Your task to perform on an android device: Check the weather Image 0: 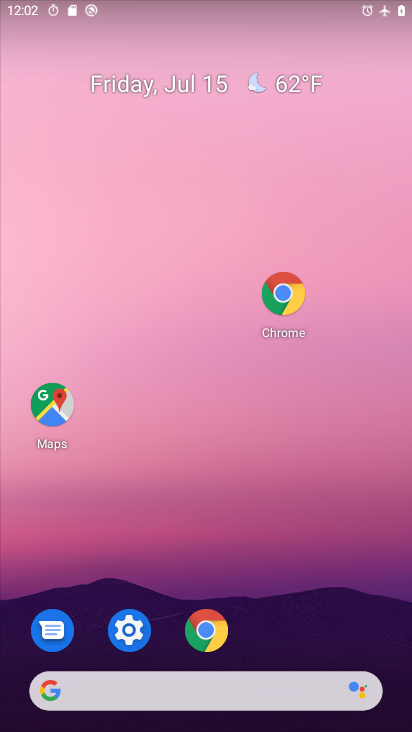
Step 0: drag from (355, 612) to (294, 288)
Your task to perform on an android device: Check the weather Image 1: 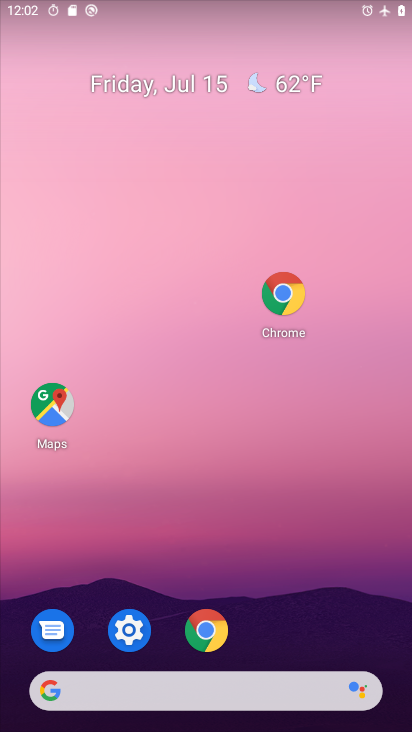
Step 1: drag from (299, 666) to (195, 216)
Your task to perform on an android device: Check the weather Image 2: 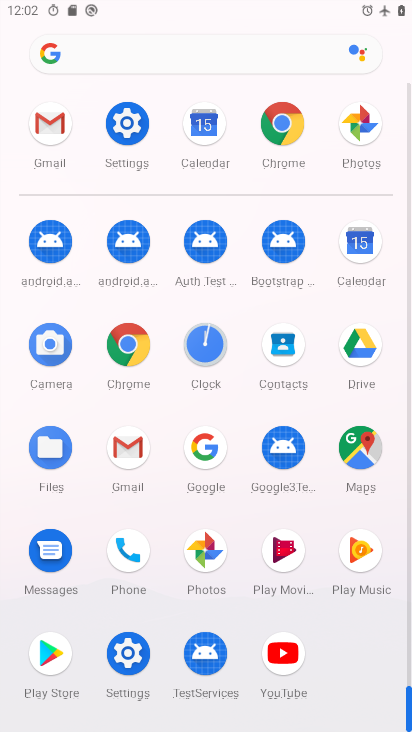
Step 2: click (282, 133)
Your task to perform on an android device: Check the weather Image 3: 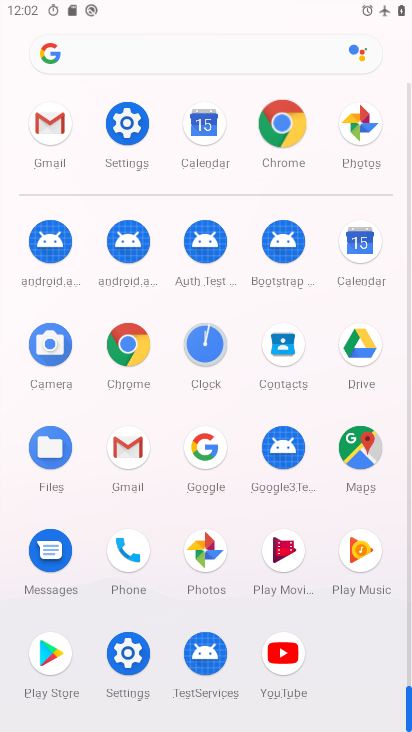
Step 3: click (282, 133)
Your task to perform on an android device: Check the weather Image 4: 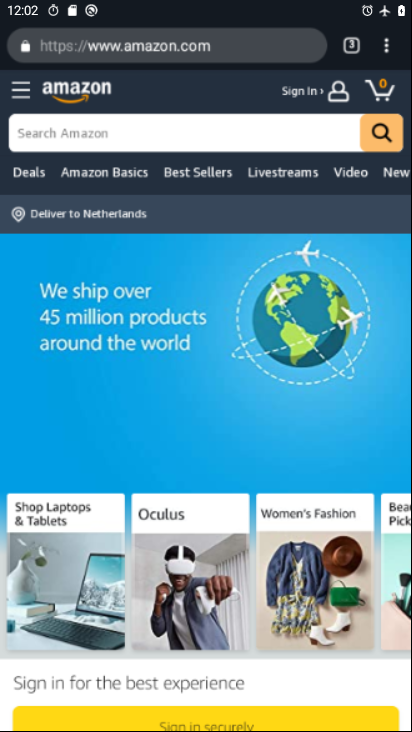
Step 4: click (284, 135)
Your task to perform on an android device: Check the weather Image 5: 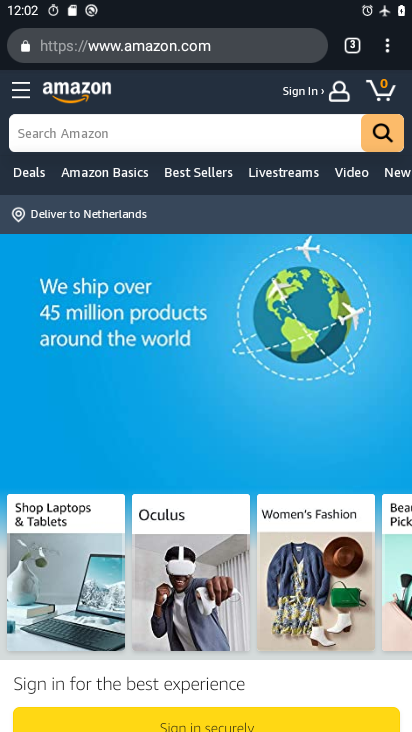
Step 5: drag from (381, 44) to (215, 149)
Your task to perform on an android device: Check the weather Image 6: 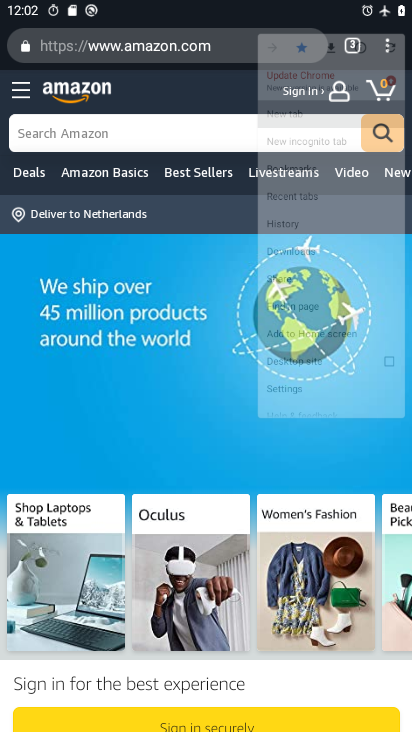
Step 6: click (220, 164)
Your task to perform on an android device: Check the weather Image 7: 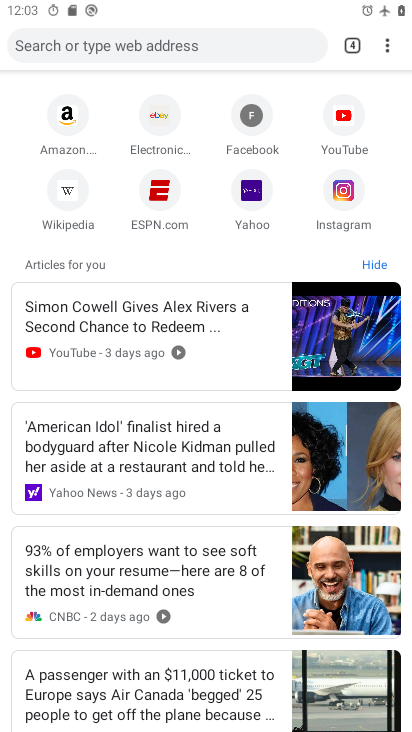
Step 7: click (52, 38)
Your task to perform on an android device: Check the weather Image 8: 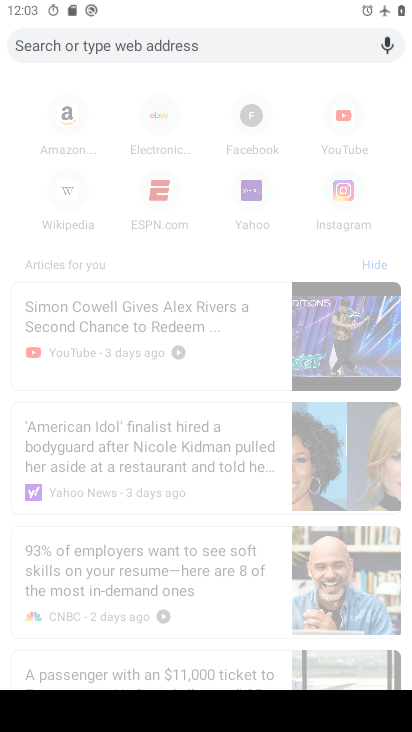
Step 8: click (51, 25)
Your task to perform on an android device: Check the weather Image 9: 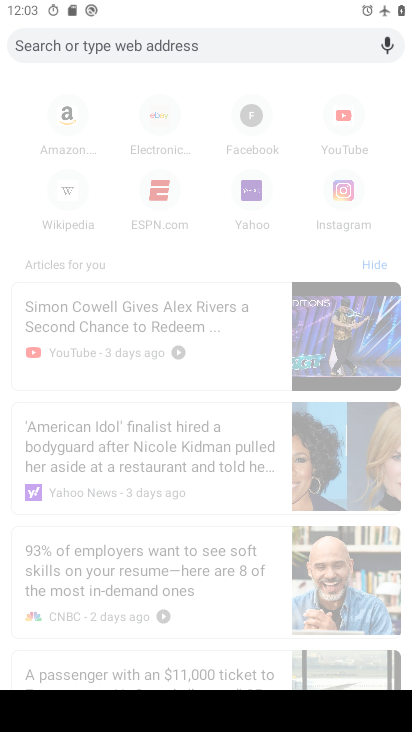
Step 9: type "weather today?"
Your task to perform on an android device: Check the weather Image 10: 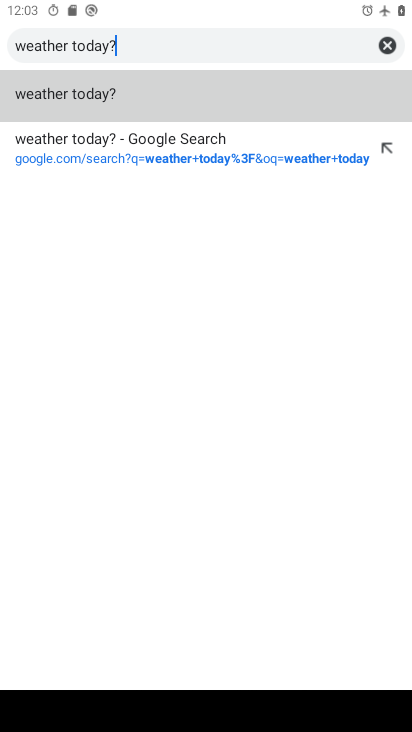
Step 10: click (82, 105)
Your task to perform on an android device: Check the weather Image 11: 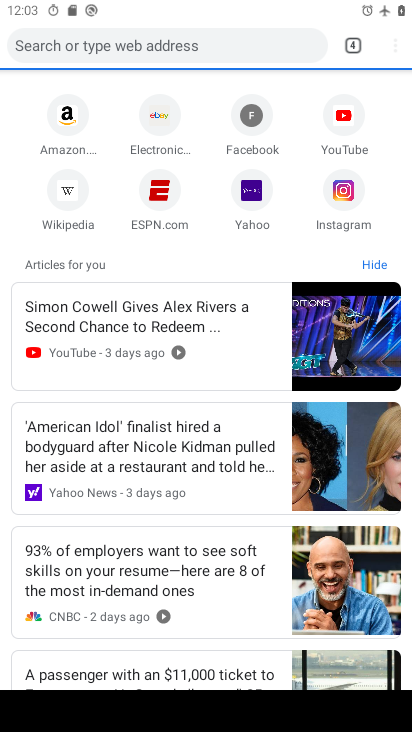
Step 11: click (84, 100)
Your task to perform on an android device: Check the weather Image 12: 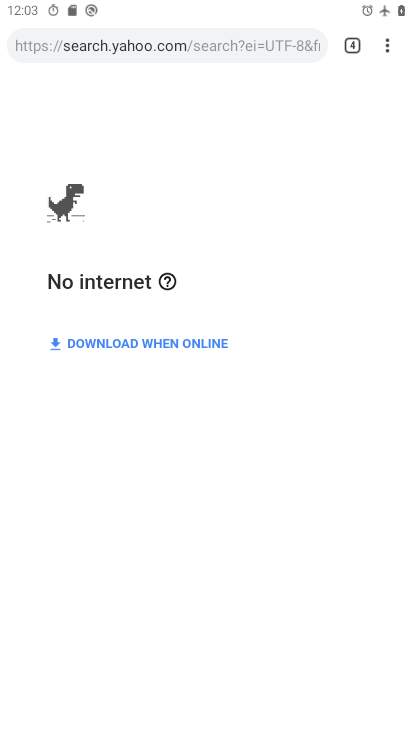
Step 12: task complete